Your task to perform on an android device: change the clock display to analog Image 0: 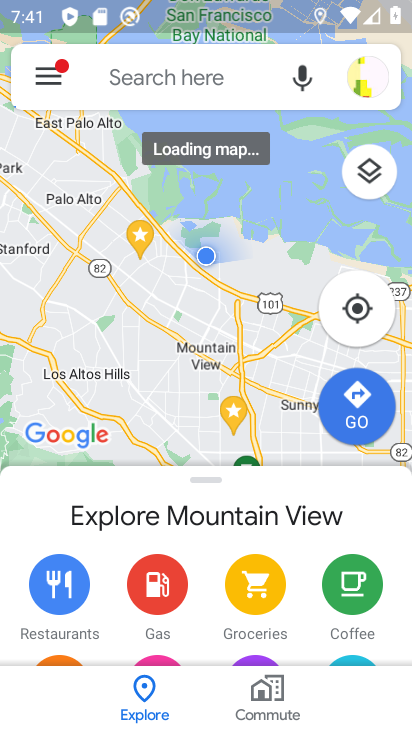
Step 0: press home button
Your task to perform on an android device: change the clock display to analog Image 1: 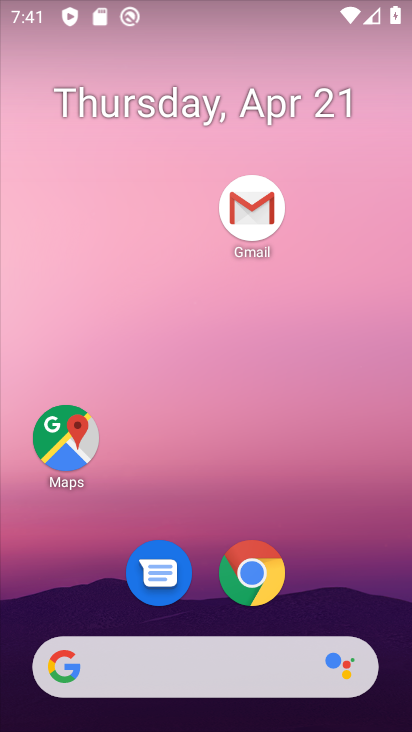
Step 1: drag from (320, 426) to (261, 53)
Your task to perform on an android device: change the clock display to analog Image 2: 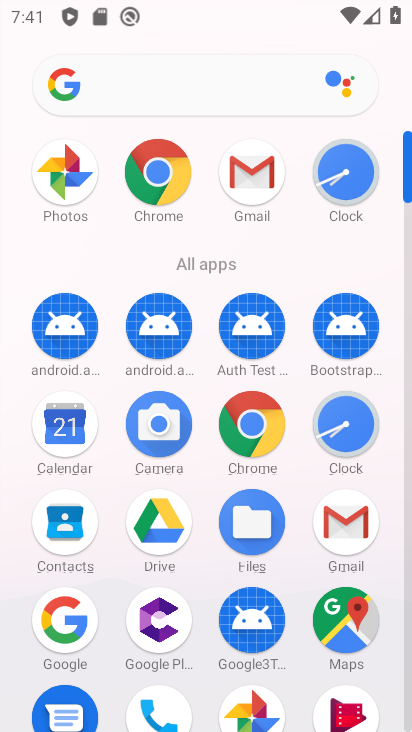
Step 2: click (347, 175)
Your task to perform on an android device: change the clock display to analog Image 3: 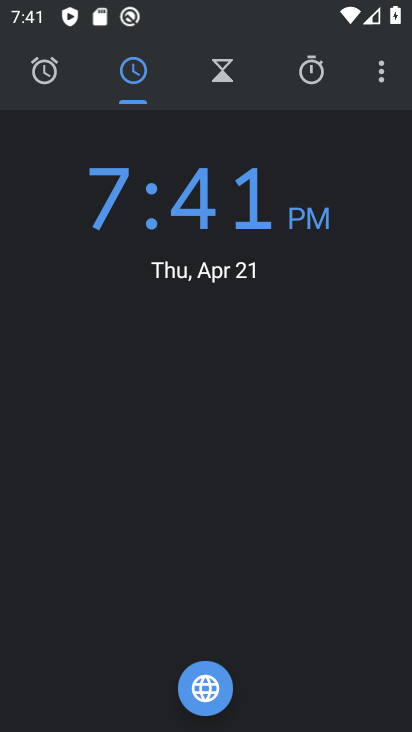
Step 3: click (374, 86)
Your task to perform on an android device: change the clock display to analog Image 4: 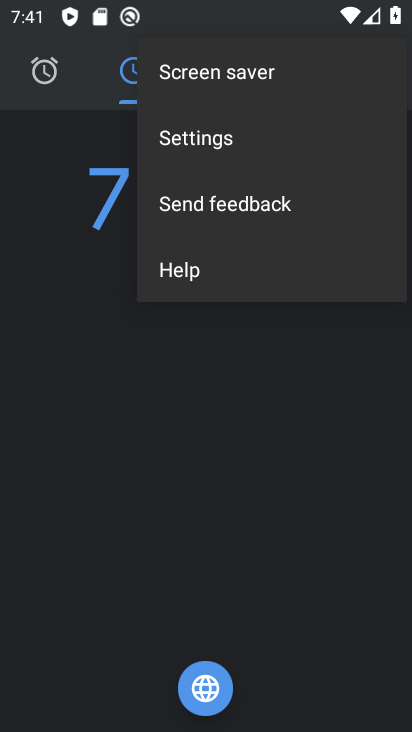
Step 4: click (231, 138)
Your task to perform on an android device: change the clock display to analog Image 5: 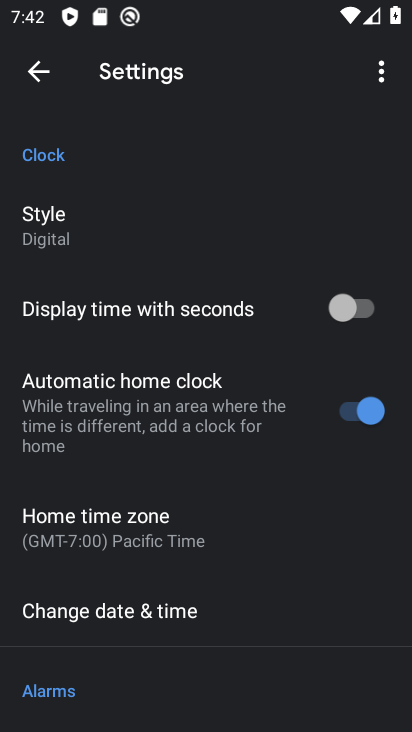
Step 5: click (37, 225)
Your task to perform on an android device: change the clock display to analog Image 6: 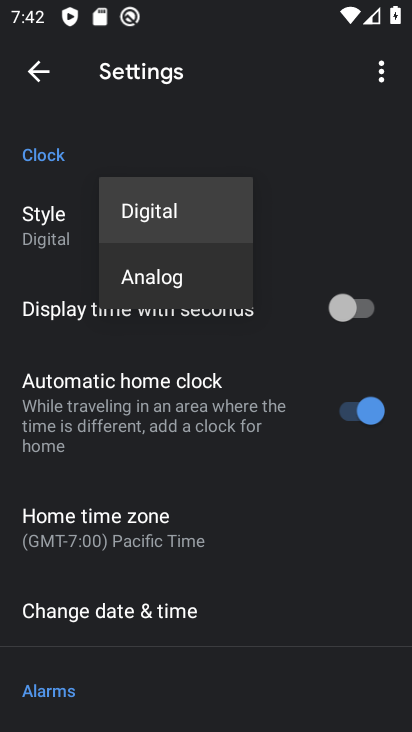
Step 6: click (129, 285)
Your task to perform on an android device: change the clock display to analog Image 7: 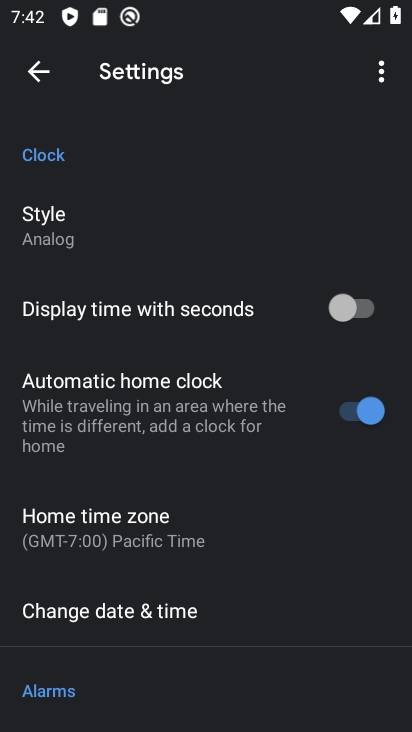
Step 7: task complete